Your task to perform on an android device: Do I have any events this weekend? Image 0: 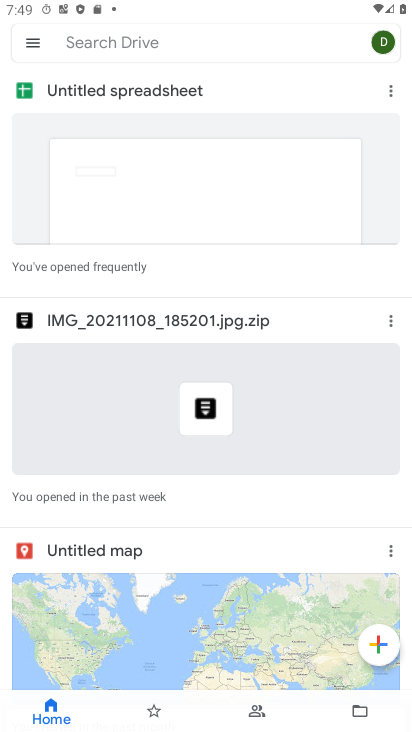
Step 0: press home button
Your task to perform on an android device: Do I have any events this weekend? Image 1: 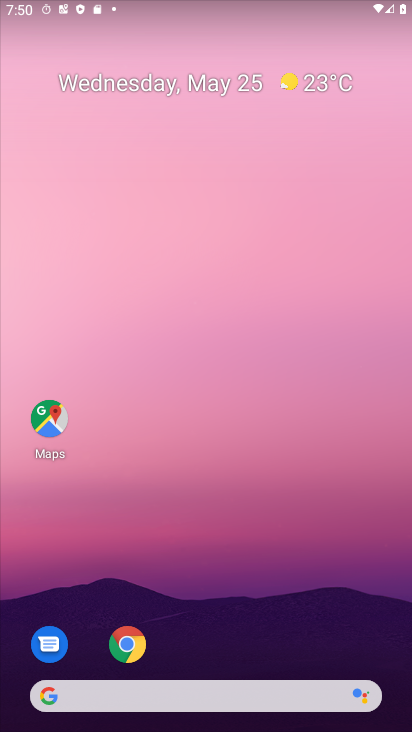
Step 1: drag from (299, 713) to (299, 170)
Your task to perform on an android device: Do I have any events this weekend? Image 2: 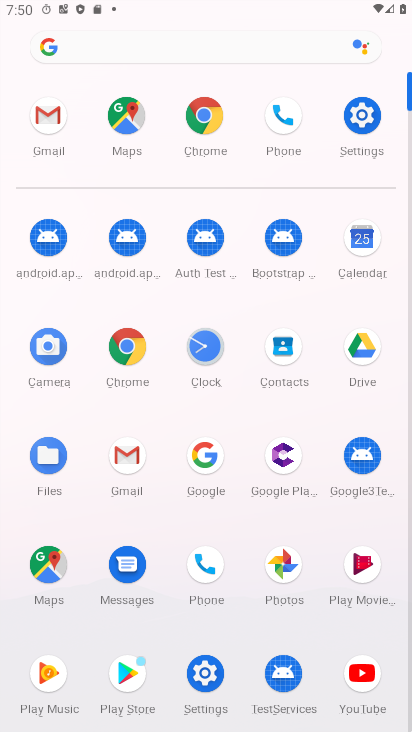
Step 2: click (357, 244)
Your task to perform on an android device: Do I have any events this weekend? Image 3: 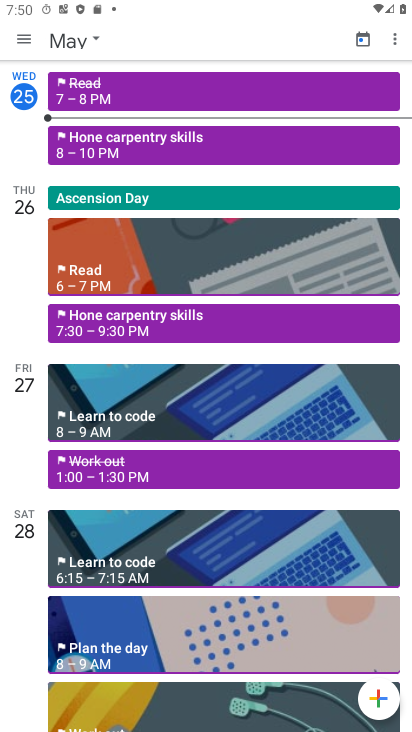
Step 3: click (18, 37)
Your task to perform on an android device: Do I have any events this weekend? Image 4: 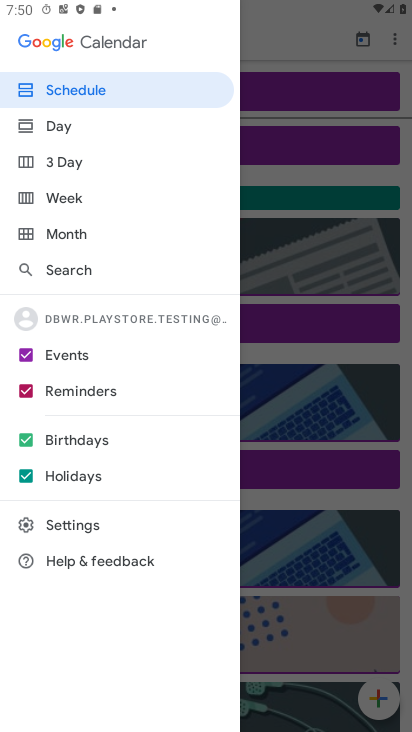
Step 4: click (102, 87)
Your task to perform on an android device: Do I have any events this weekend? Image 5: 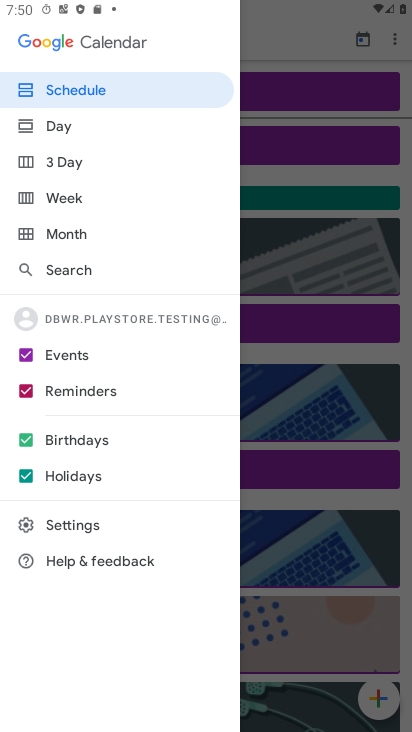
Step 5: click (123, 94)
Your task to perform on an android device: Do I have any events this weekend? Image 6: 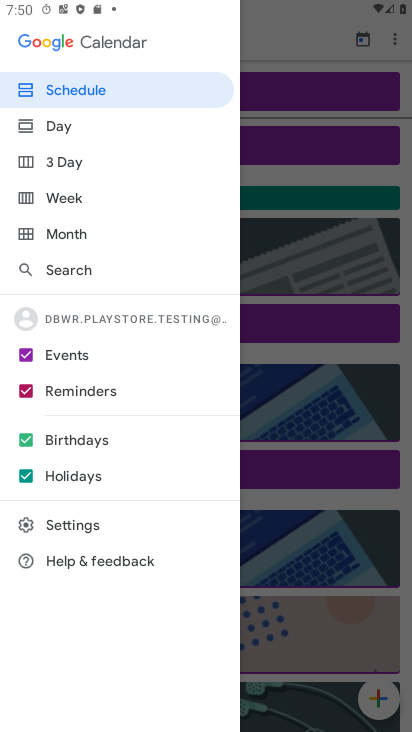
Step 6: click (100, 195)
Your task to perform on an android device: Do I have any events this weekend? Image 7: 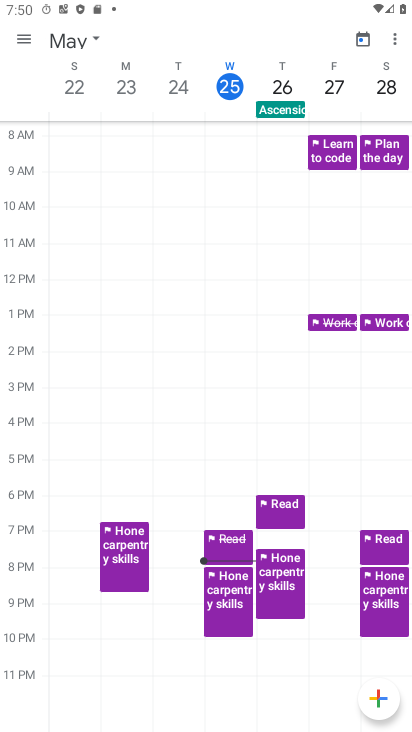
Step 7: task complete